Your task to perform on an android device: turn off picture-in-picture Image 0: 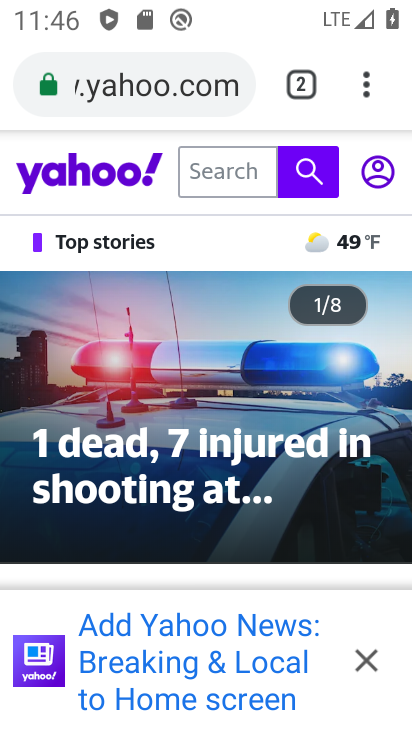
Step 0: press home button
Your task to perform on an android device: turn off picture-in-picture Image 1: 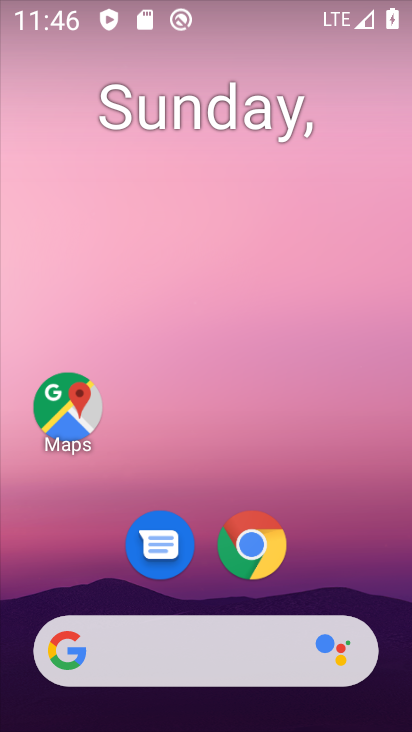
Step 1: drag from (358, 573) to (376, 204)
Your task to perform on an android device: turn off picture-in-picture Image 2: 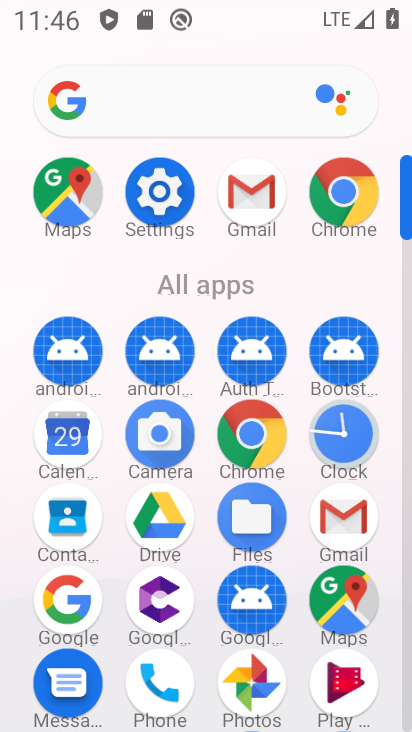
Step 2: click (170, 214)
Your task to perform on an android device: turn off picture-in-picture Image 3: 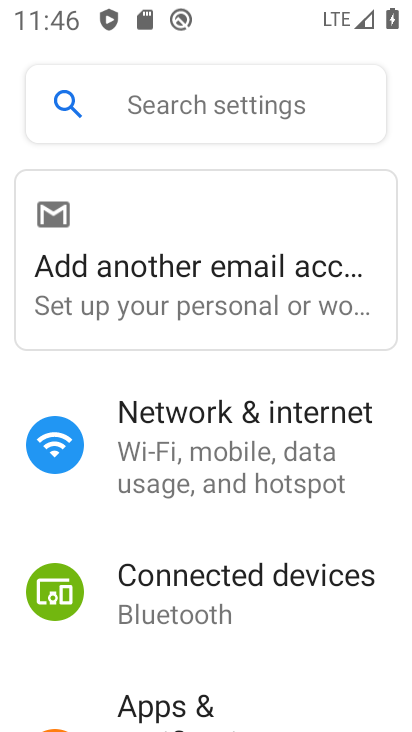
Step 3: drag from (316, 615) to (340, 489)
Your task to perform on an android device: turn off picture-in-picture Image 4: 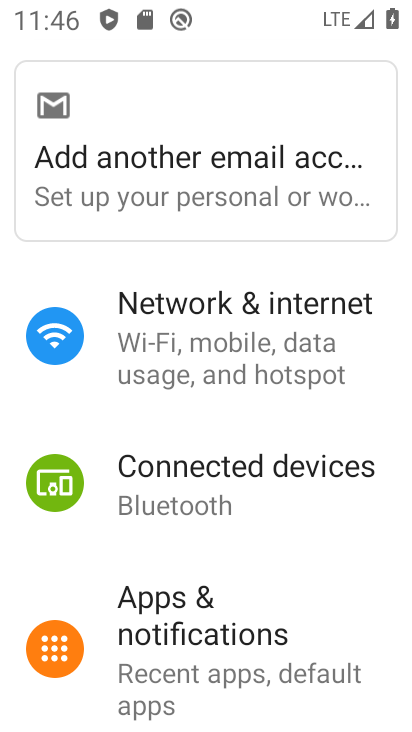
Step 4: drag from (322, 598) to (333, 464)
Your task to perform on an android device: turn off picture-in-picture Image 5: 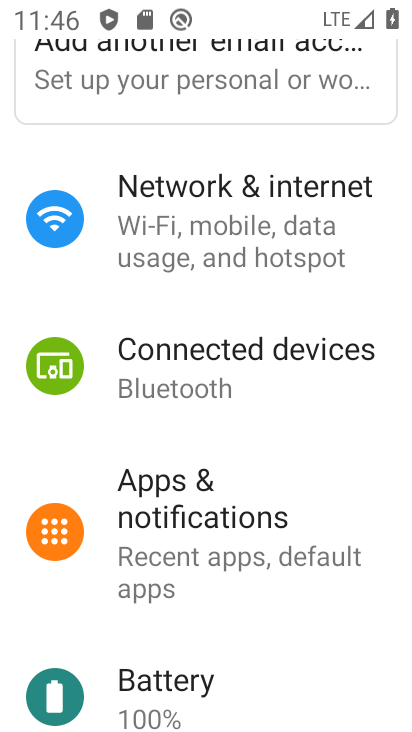
Step 5: drag from (346, 628) to (353, 456)
Your task to perform on an android device: turn off picture-in-picture Image 6: 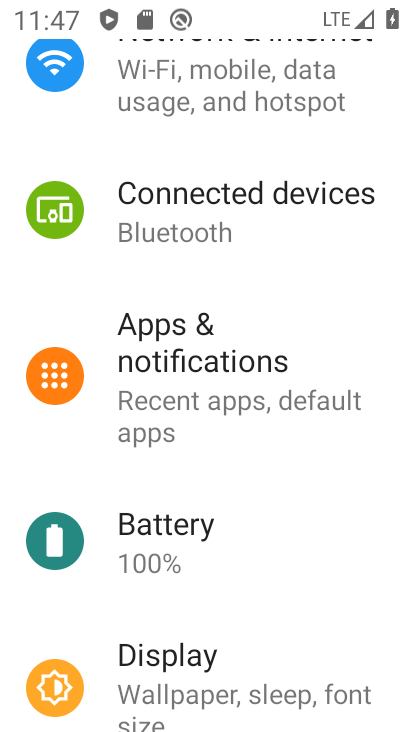
Step 6: drag from (340, 569) to (349, 453)
Your task to perform on an android device: turn off picture-in-picture Image 7: 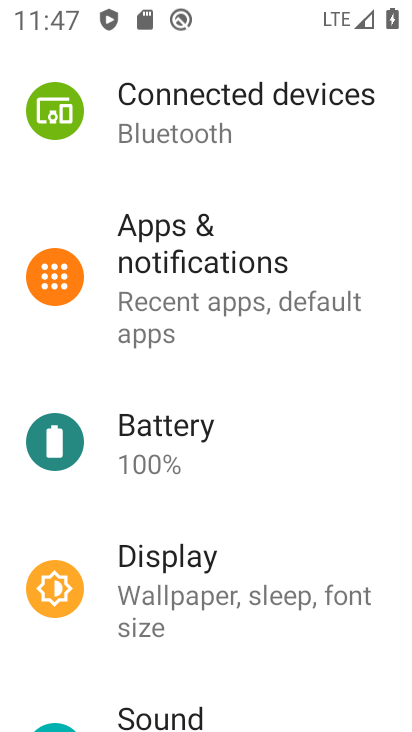
Step 7: click (300, 262)
Your task to perform on an android device: turn off picture-in-picture Image 8: 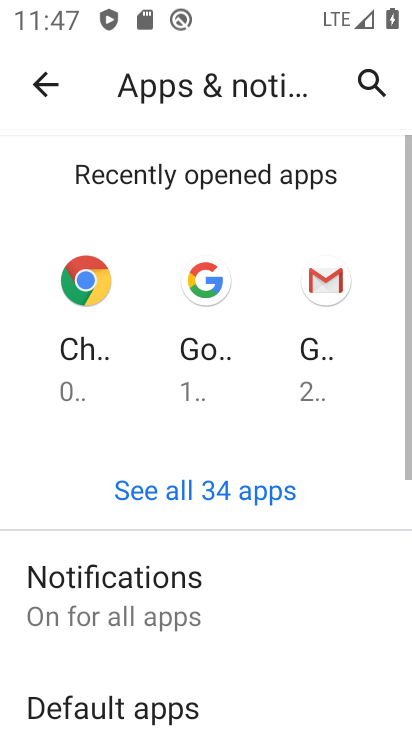
Step 8: drag from (303, 582) to (314, 429)
Your task to perform on an android device: turn off picture-in-picture Image 9: 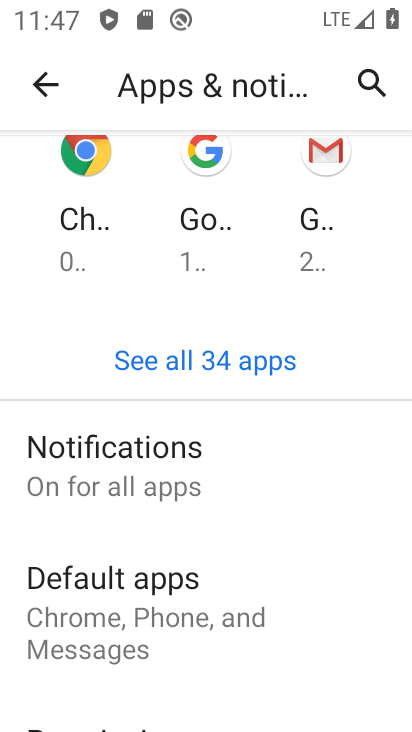
Step 9: drag from (323, 579) to (327, 435)
Your task to perform on an android device: turn off picture-in-picture Image 10: 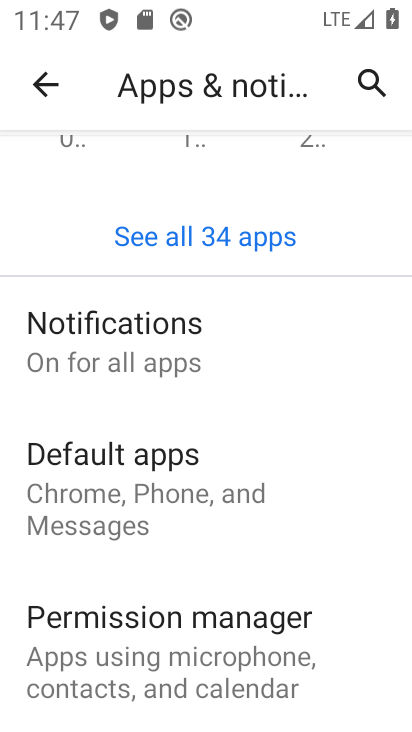
Step 10: drag from (348, 663) to (364, 428)
Your task to perform on an android device: turn off picture-in-picture Image 11: 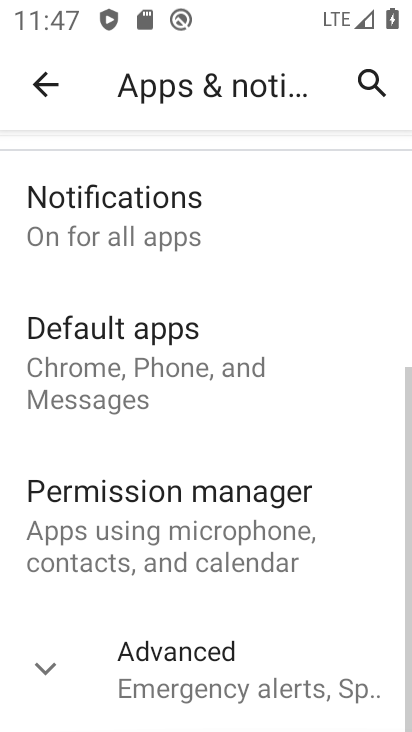
Step 11: click (332, 660)
Your task to perform on an android device: turn off picture-in-picture Image 12: 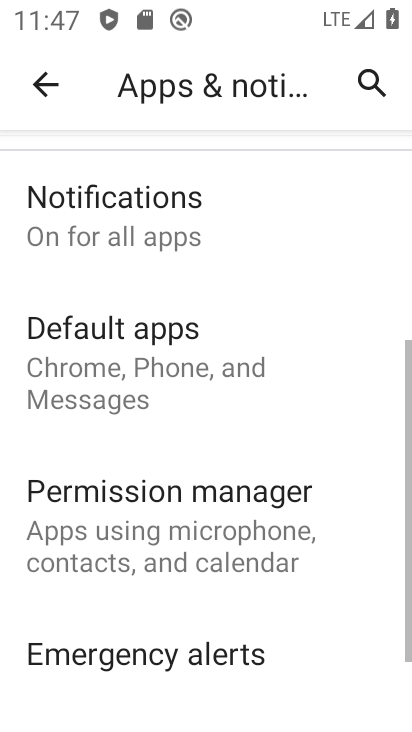
Step 12: drag from (332, 657) to (344, 500)
Your task to perform on an android device: turn off picture-in-picture Image 13: 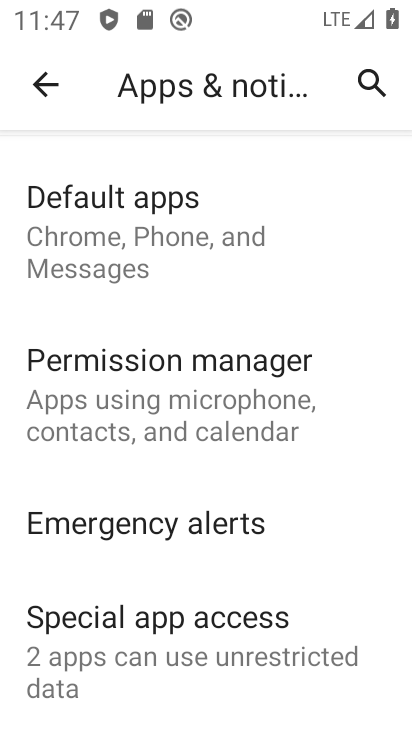
Step 13: click (301, 652)
Your task to perform on an android device: turn off picture-in-picture Image 14: 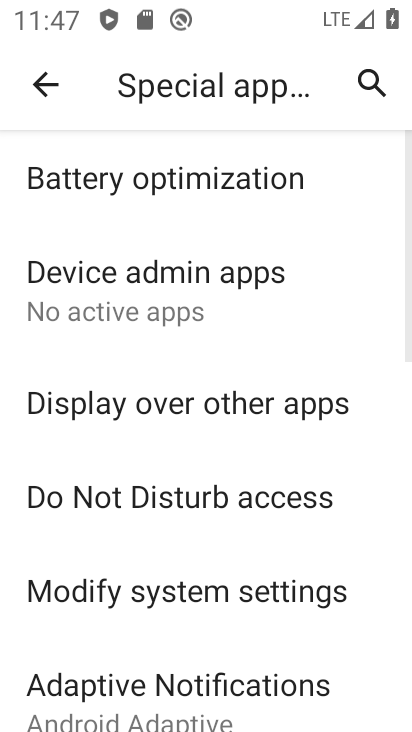
Step 14: drag from (373, 645) to (375, 539)
Your task to perform on an android device: turn off picture-in-picture Image 15: 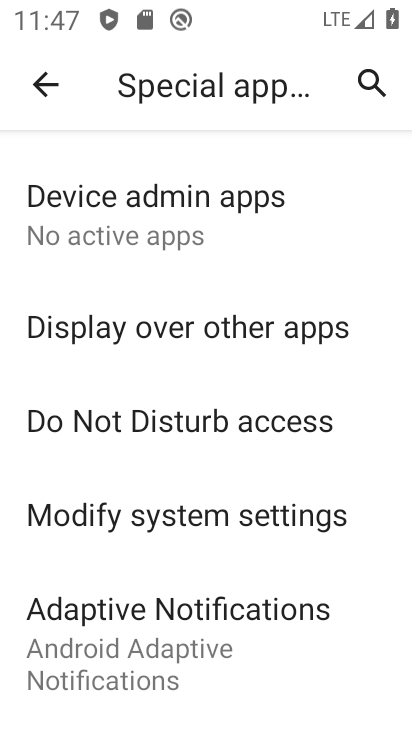
Step 15: drag from (375, 676) to (385, 570)
Your task to perform on an android device: turn off picture-in-picture Image 16: 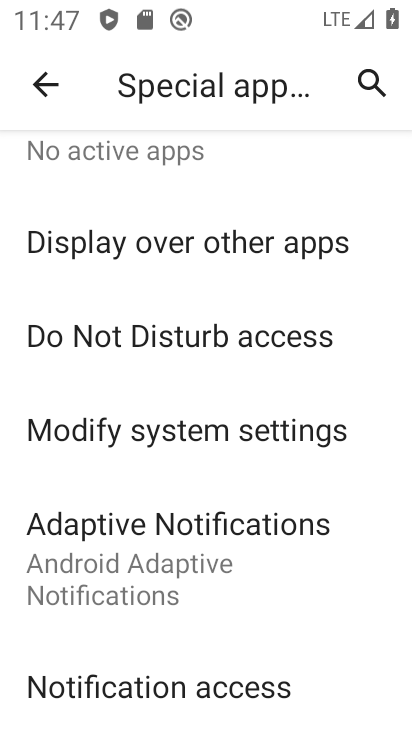
Step 16: drag from (361, 679) to (370, 569)
Your task to perform on an android device: turn off picture-in-picture Image 17: 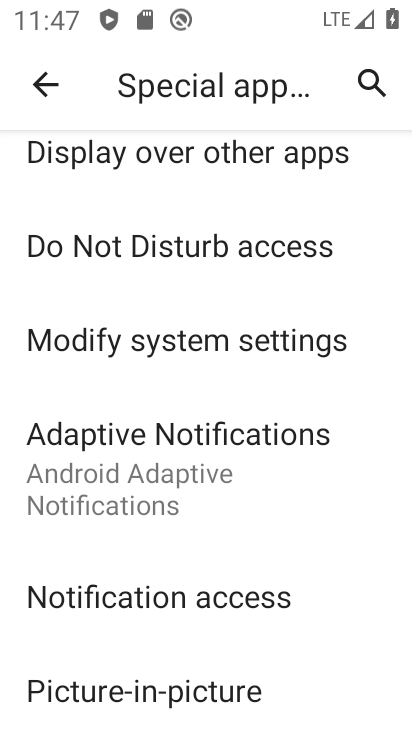
Step 17: drag from (353, 653) to (361, 526)
Your task to perform on an android device: turn off picture-in-picture Image 18: 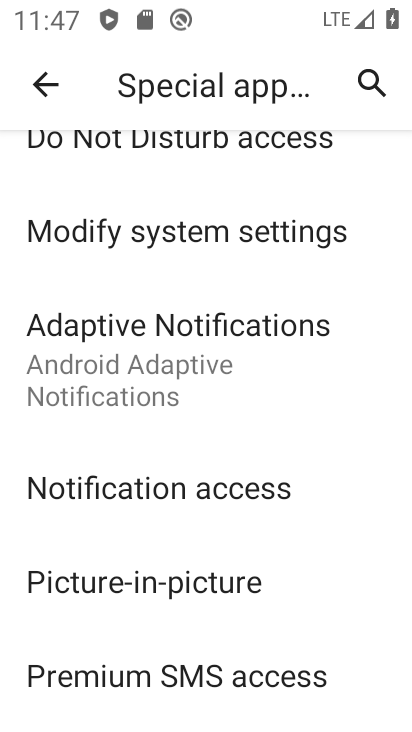
Step 18: click (296, 591)
Your task to perform on an android device: turn off picture-in-picture Image 19: 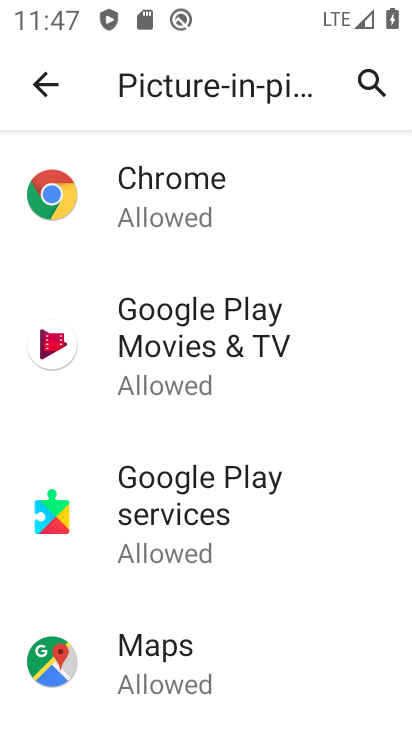
Step 19: drag from (315, 615) to (334, 449)
Your task to perform on an android device: turn off picture-in-picture Image 20: 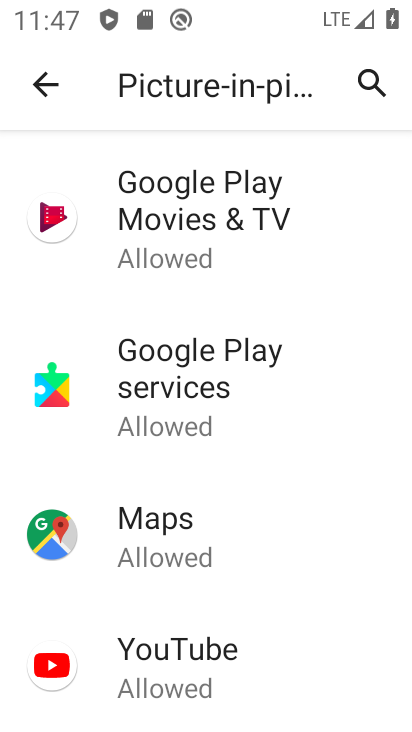
Step 20: drag from (325, 616) to (336, 503)
Your task to perform on an android device: turn off picture-in-picture Image 21: 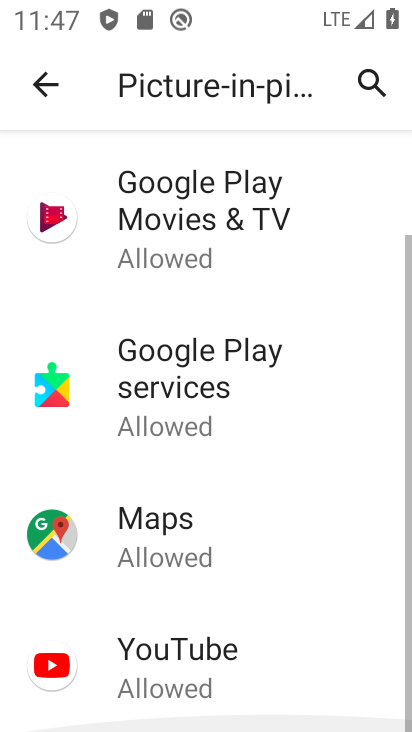
Step 21: click (291, 666)
Your task to perform on an android device: turn off picture-in-picture Image 22: 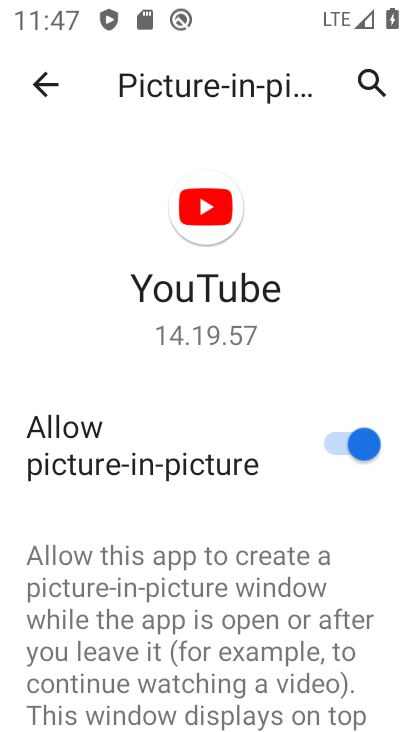
Step 22: click (343, 447)
Your task to perform on an android device: turn off picture-in-picture Image 23: 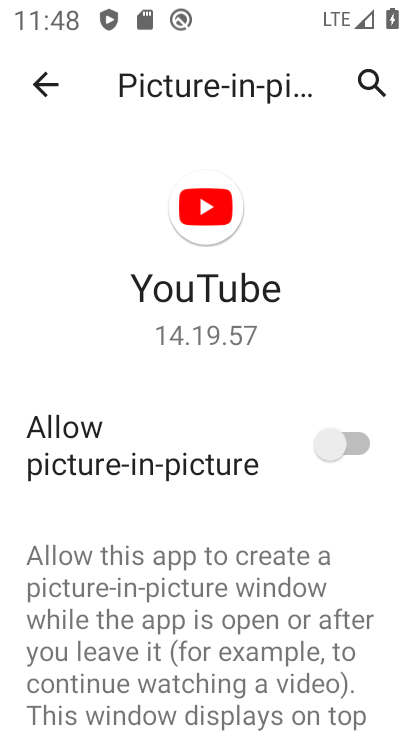
Step 23: task complete